Your task to perform on an android device: Go to notification settings Image 0: 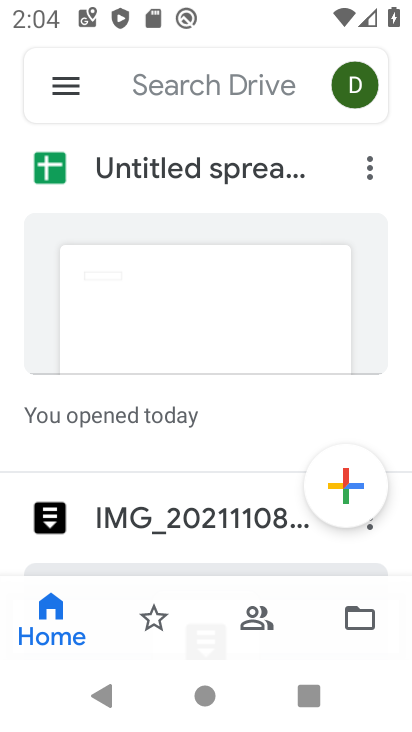
Step 0: press home button
Your task to perform on an android device: Go to notification settings Image 1: 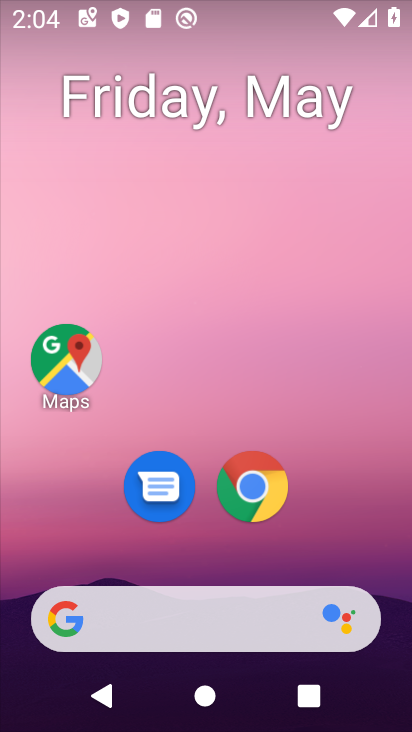
Step 1: drag from (397, 701) to (339, 171)
Your task to perform on an android device: Go to notification settings Image 2: 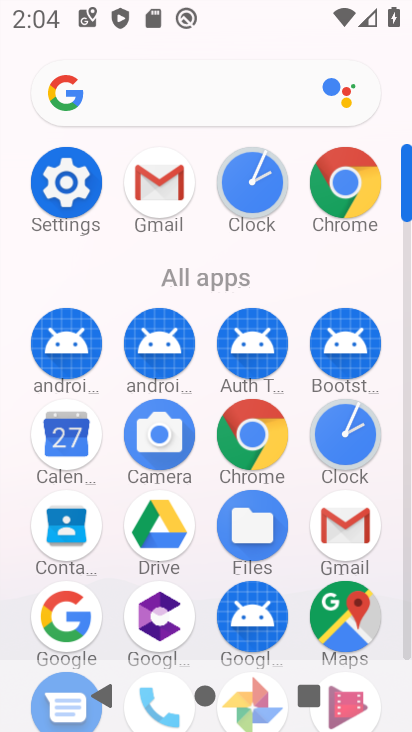
Step 2: click (49, 193)
Your task to perform on an android device: Go to notification settings Image 3: 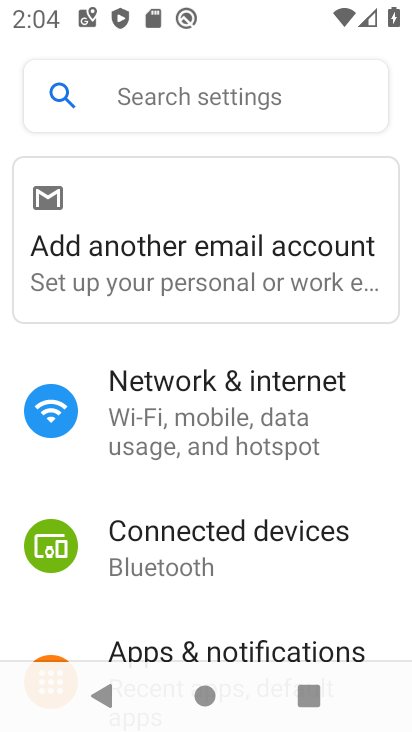
Step 3: click (217, 641)
Your task to perform on an android device: Go to notification settings Image 4: 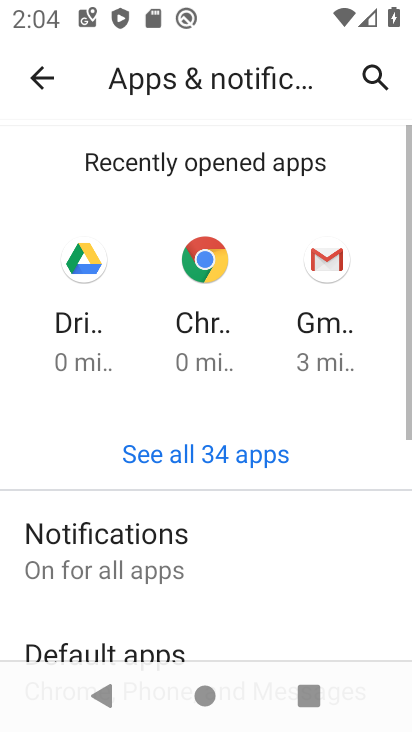
Step 4: click (132, 558)
Your task to perform on an android device: Go to notification settings Image 5: 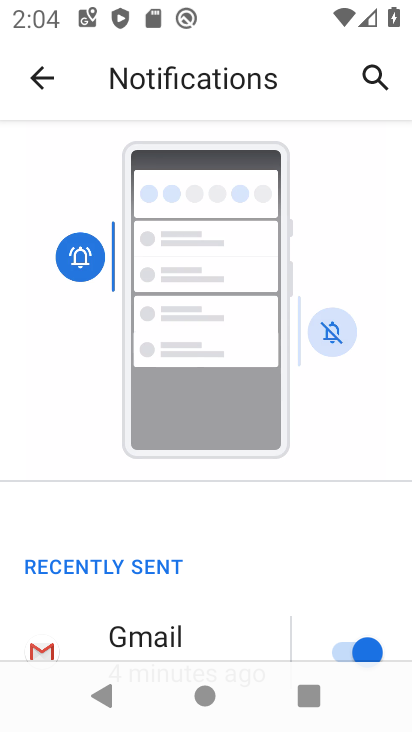
Step 5: task complete